Your task to perform on an android device: open app "LiveIn - Share Your Moment" (install if not already installed) Image 0: 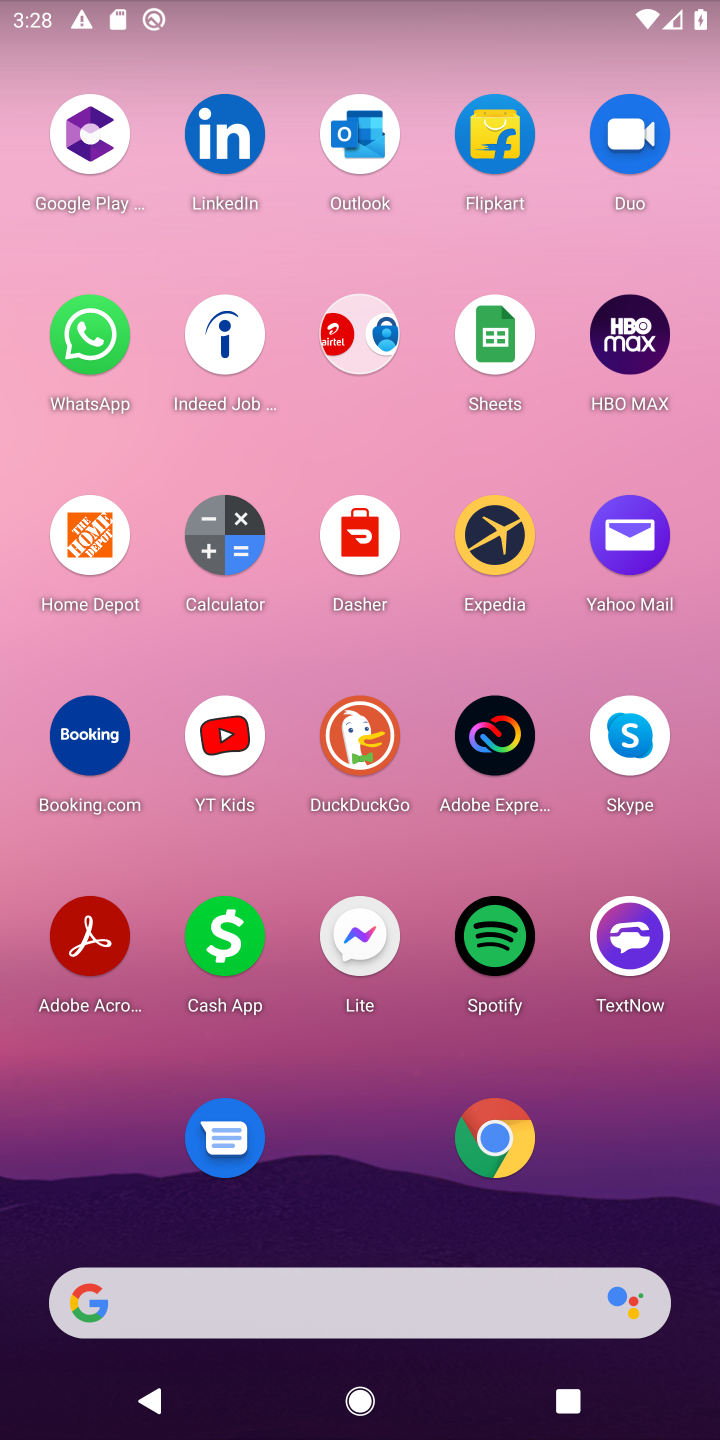
Step 0: drag from (371, 922) to (431, 102)
Your task to perform on an android device: open app "LiveIn - Share Your Moment" (install if not already installed) Image 1: 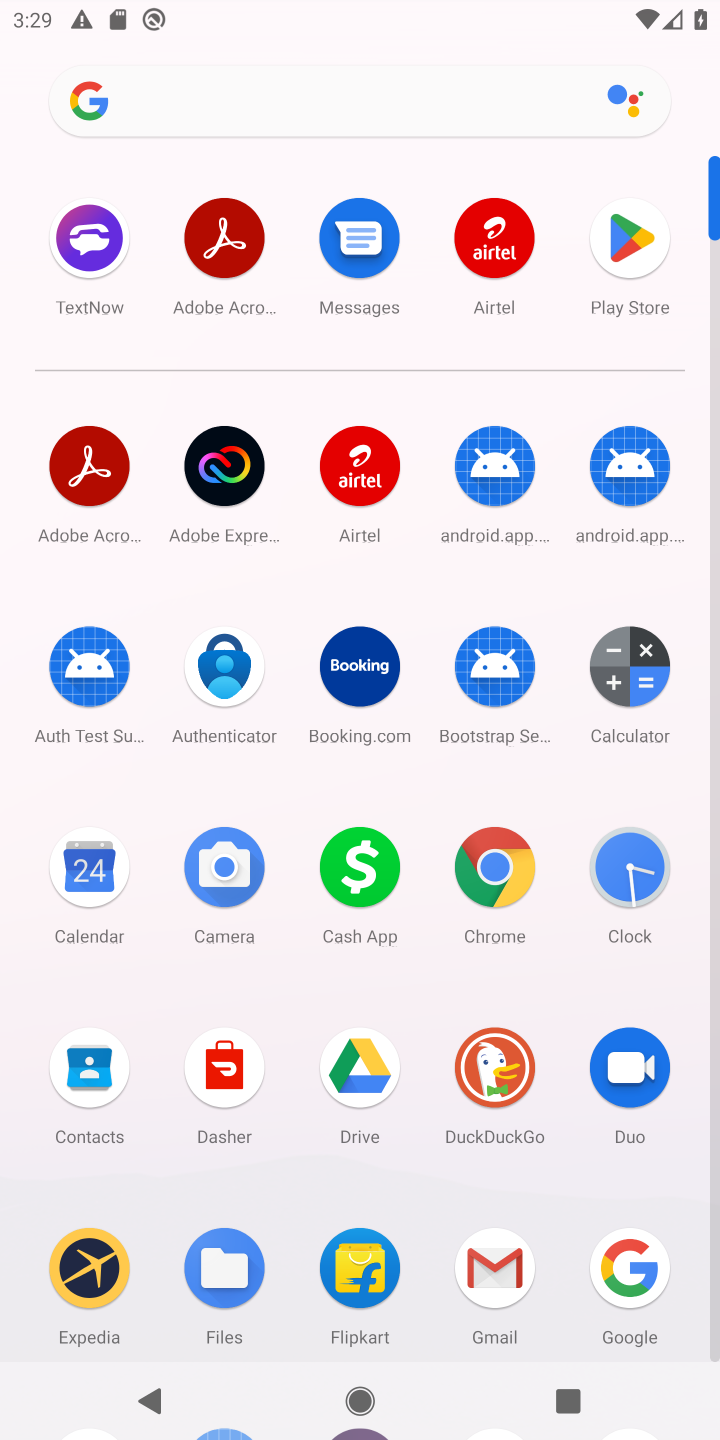
Step 1: click (631, 234)
Your task to perform on an android device: open app "LiveIn - Share Your Moment" (install if not already installed) Image 2: 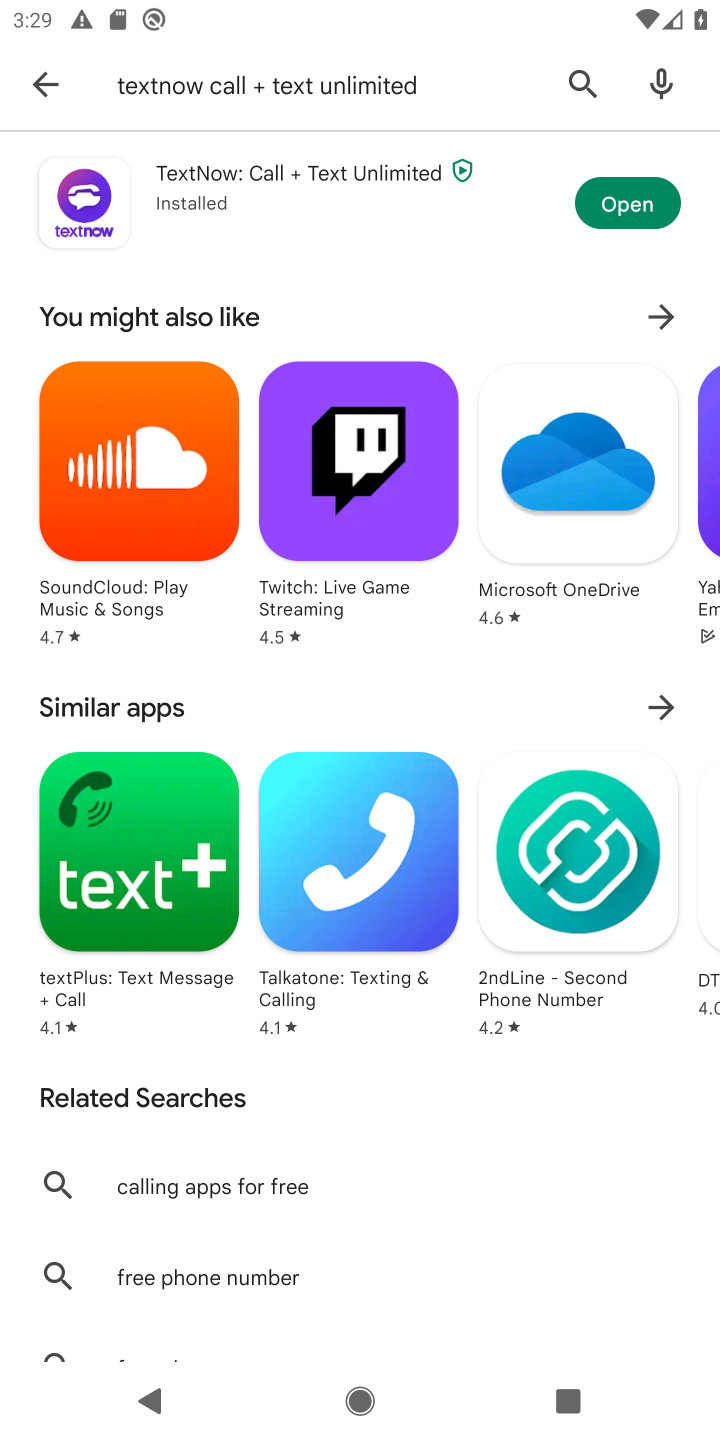
Step 2: click (579, 74)
Your task to perform on an android device: open app "LiveIn - Share Your Moment" (install if not already installed) Image 3: 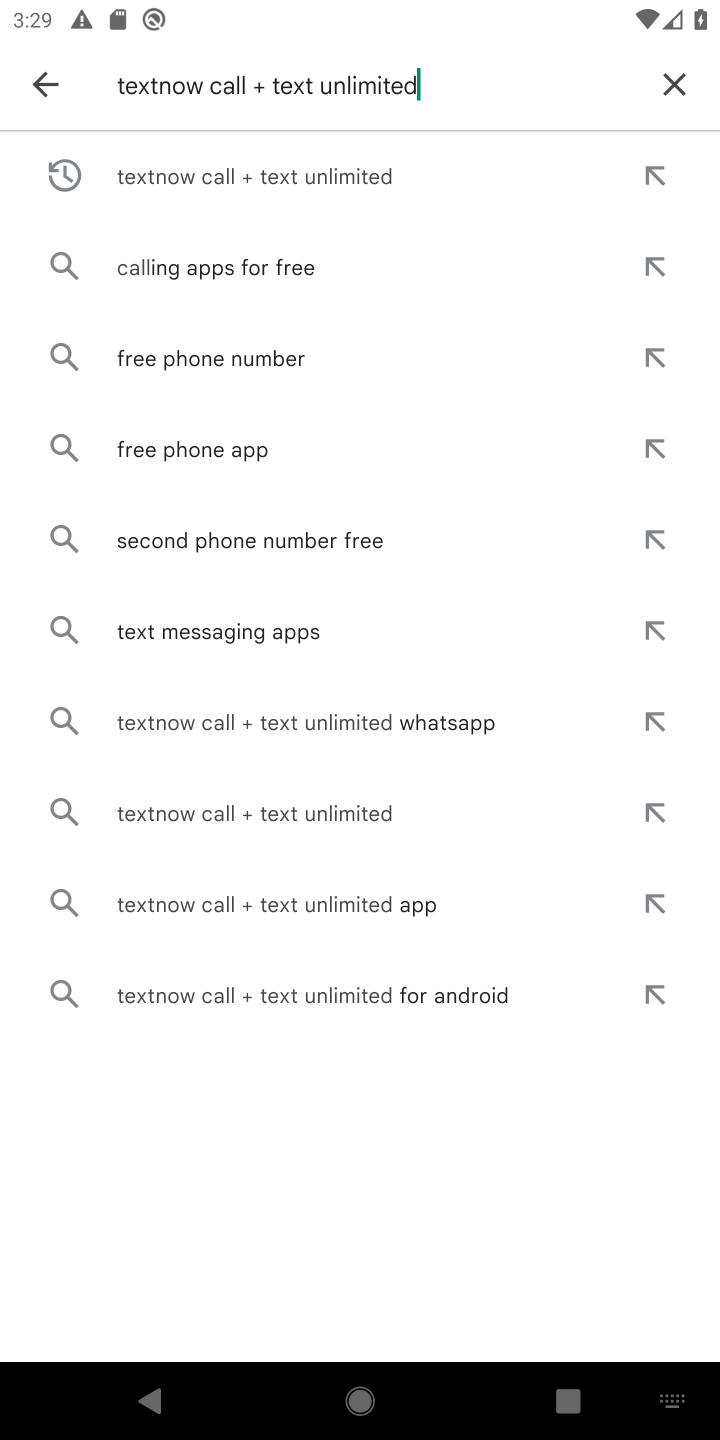
Step 3: click (671, 79)
Your task to perform on an android device: open app "LiveIn - Share Your Moment" (install if not already installed) Image 4: 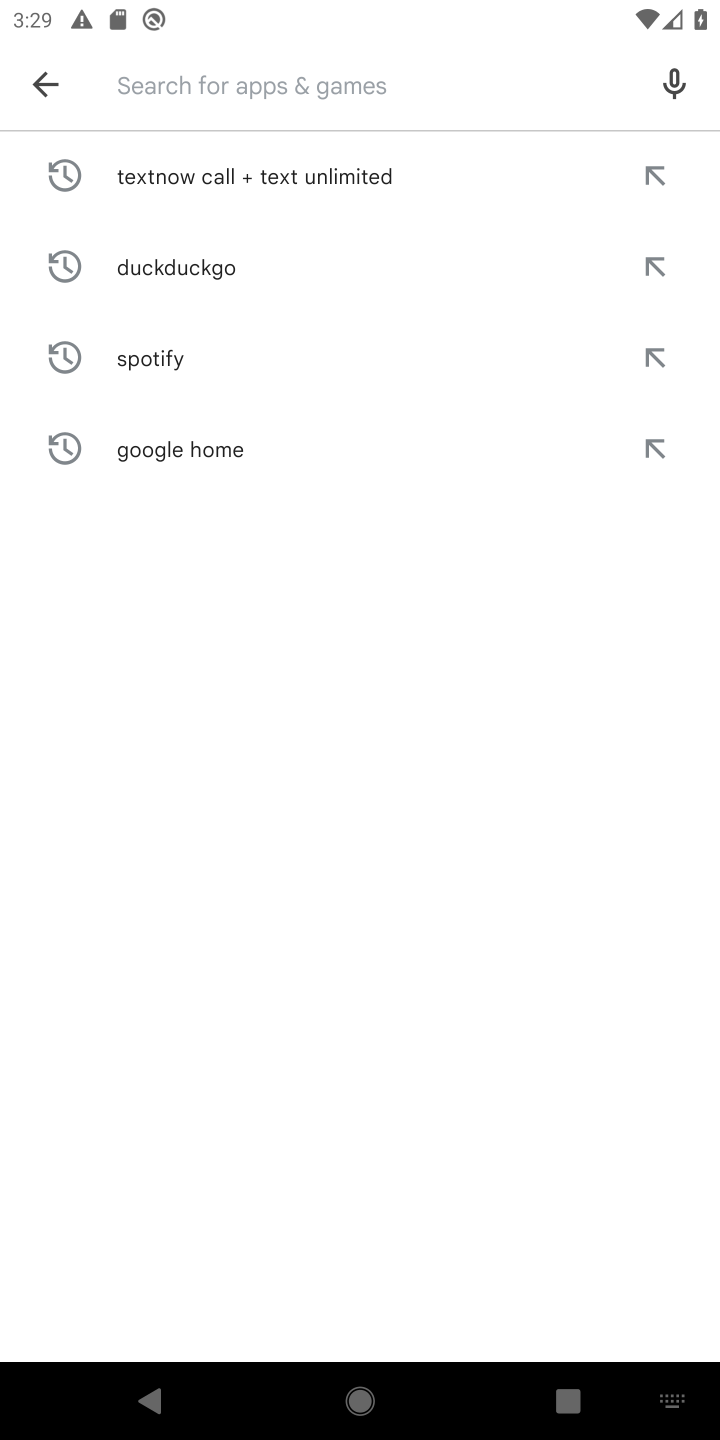
Step 4: type "LiveIn - Share Your Moment"
Your task to perform on an android device: open app "LiveIn - Share Your Moment" (install if not already installed) Image 5: 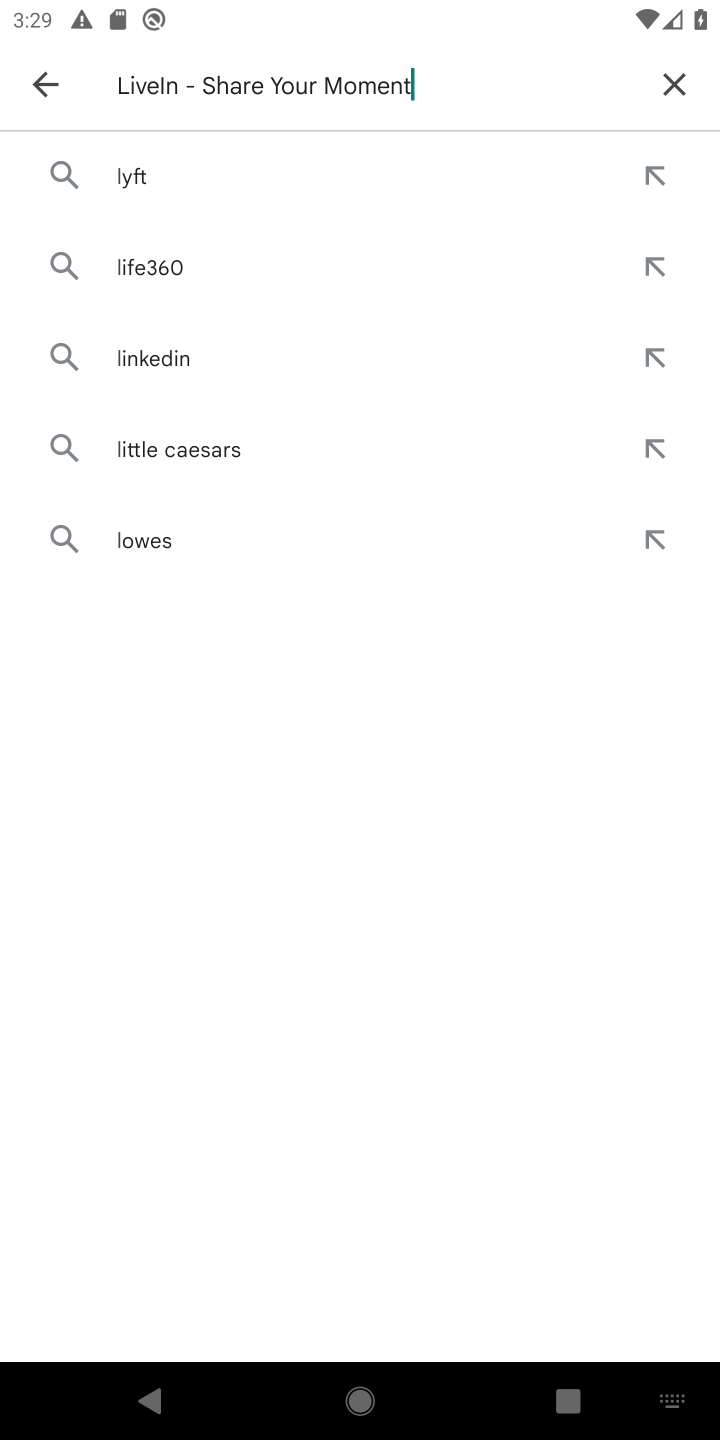
Step 5: type ""
Your task to perform on an android device: open app "LiveIn - Share Your Moment" (install if not already installed) Image 6: 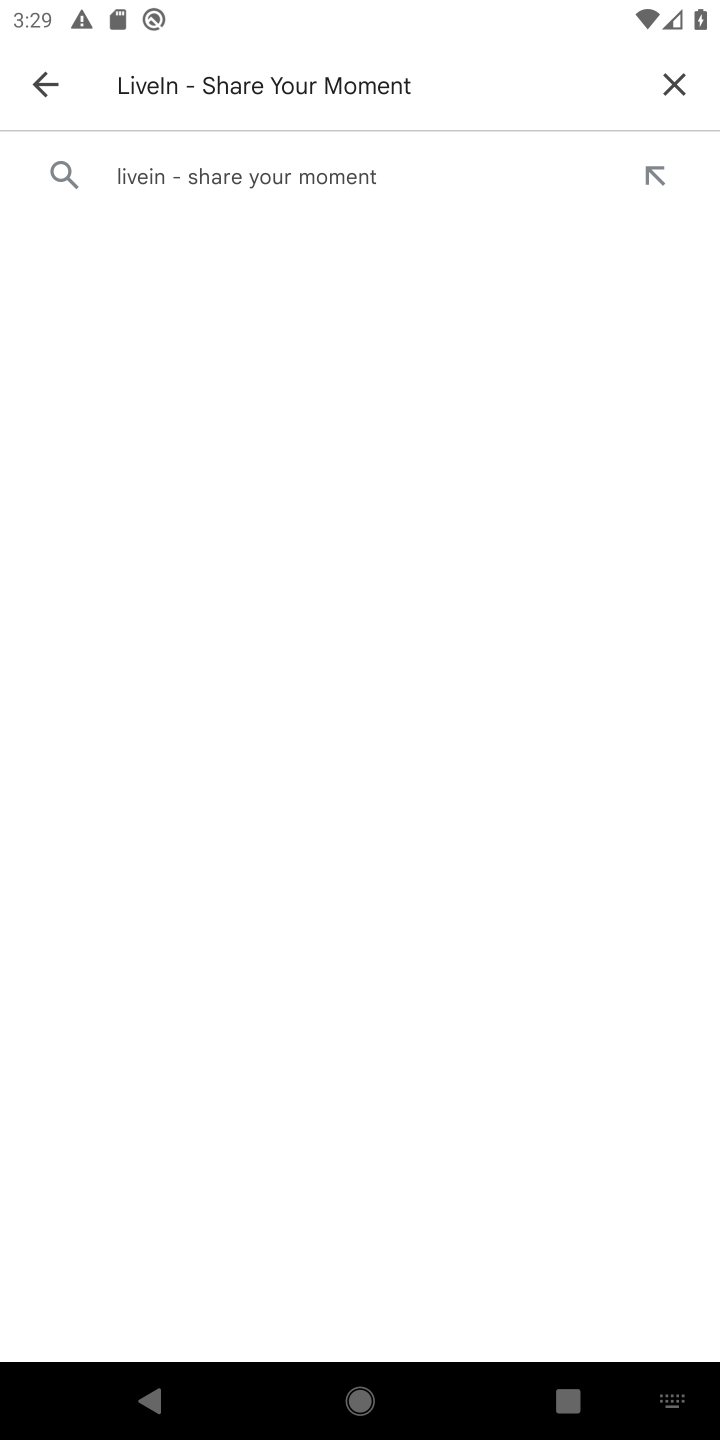
Step 6: click (335, 174)
Your task to perform on an android device: open app "LiveIn - Share Your Moment" (install if not already installed) Image 7: 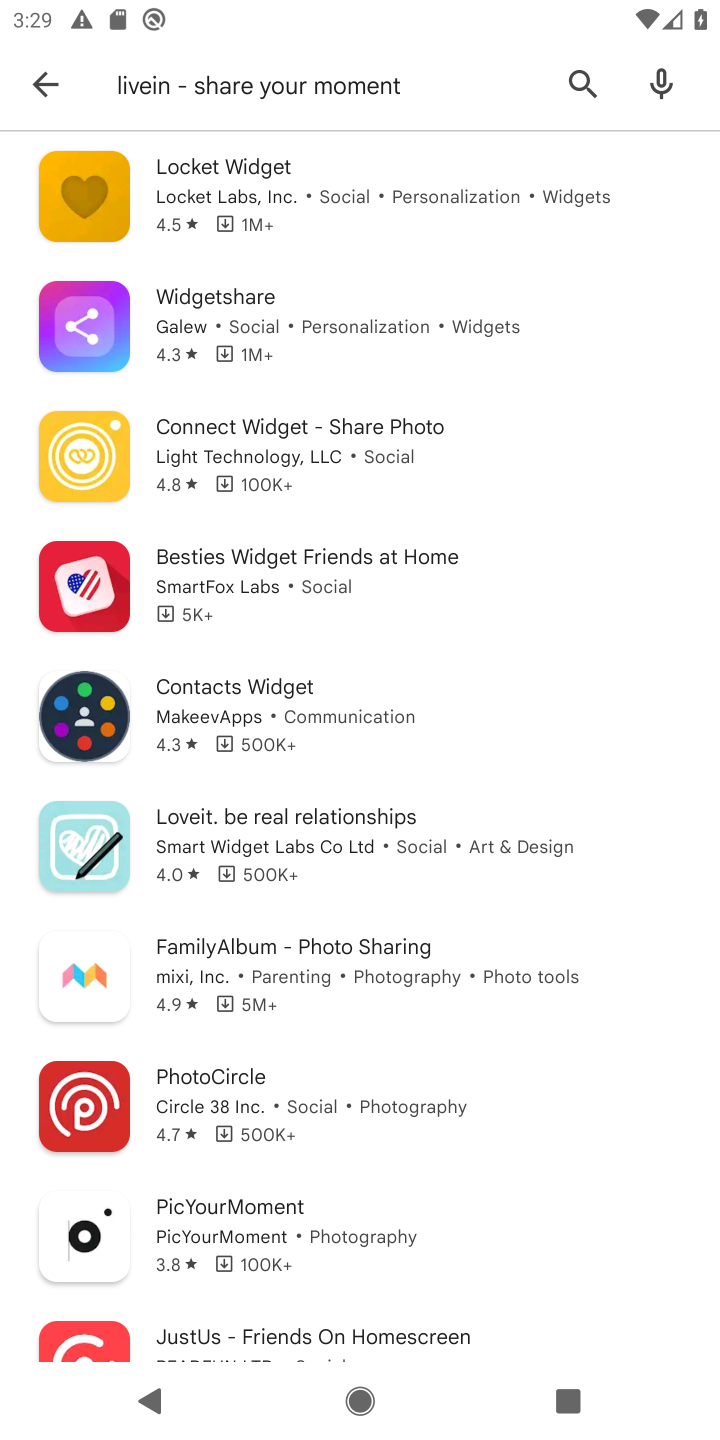
Step 7: task complete